Your task to perform on an android device: Open the Play Movies app and select the watchlist tab. Image 0: 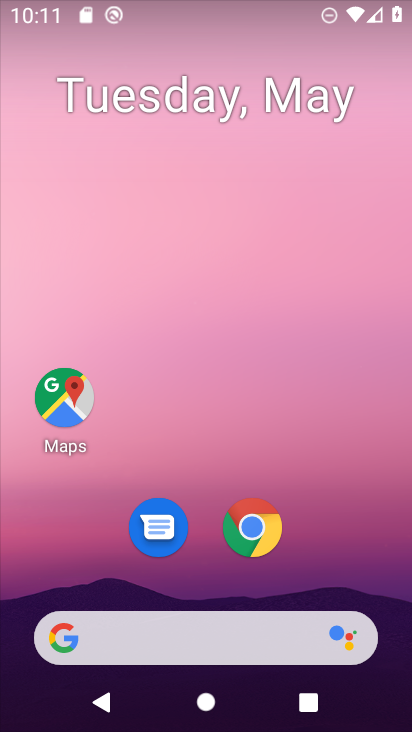
Step 0: drag from (325, 551) to (258, 154)
Your task to perform on an android device: Open the Play Movies app and select the watchlist tab. Image 1: 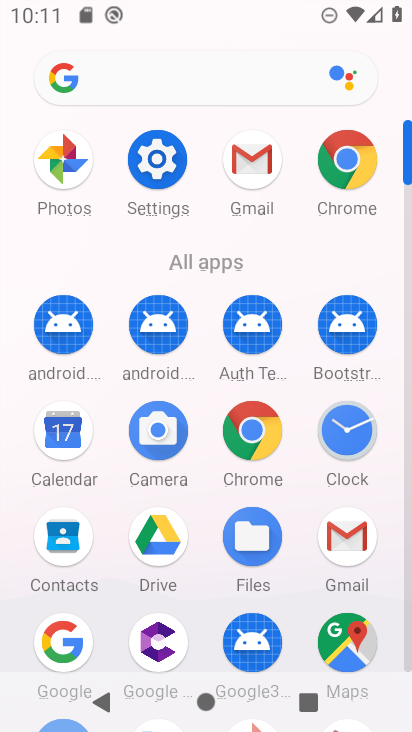
Step 1: drag from (205, 554) to (224, 219)
Your task to perform on an android device: Open the Play Movies app and select the watchlist tab. Image 2: 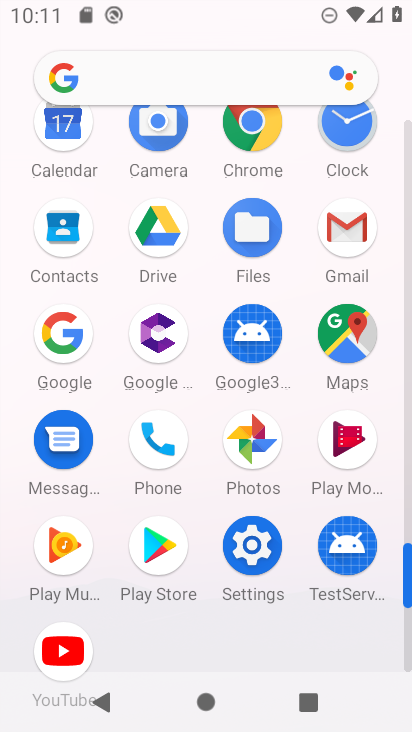
Step 2: click (350, 441)
Your task to perform on an android device: Open the Play Movies app and select the watchlist tab. Image 3: 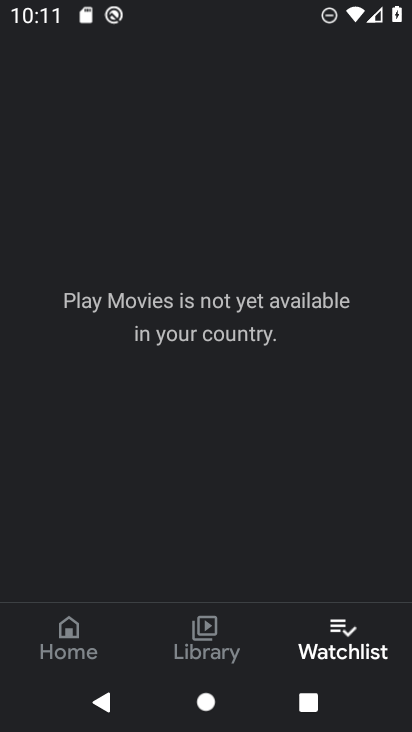
Step 3: task complete